Your task to perform on an android device: toggle wifi Image 0: 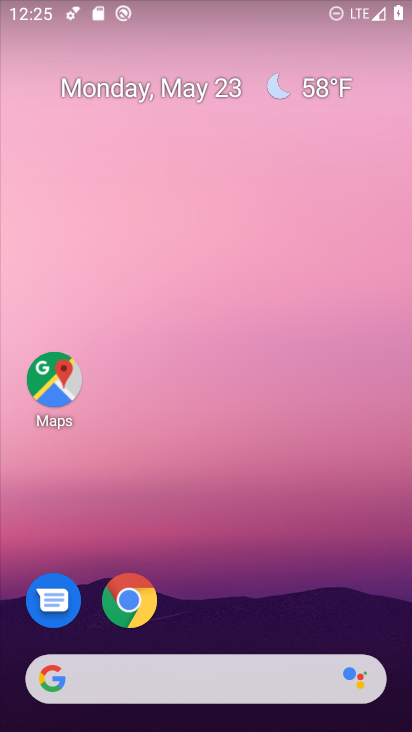
Step 0: drag from (276, 589) to (339, 162)
Your task to perform on an android device: toggle wifi Image 1: 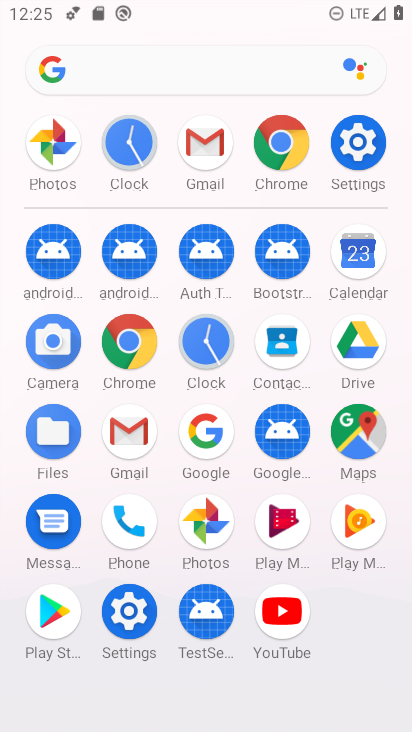
Step 1: click (353, 151)
Your task to perform on an android device: toggle wifi Image 2: 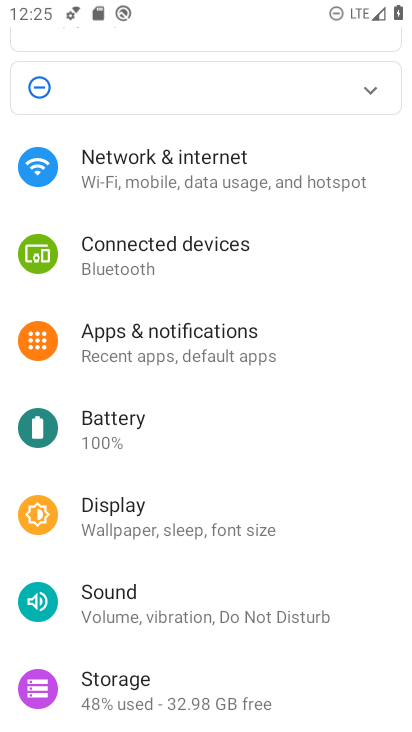
Step 2: drag from (133, 350) to (158, 576)
Your task to perform on an android device: toggle wifi Image 3: 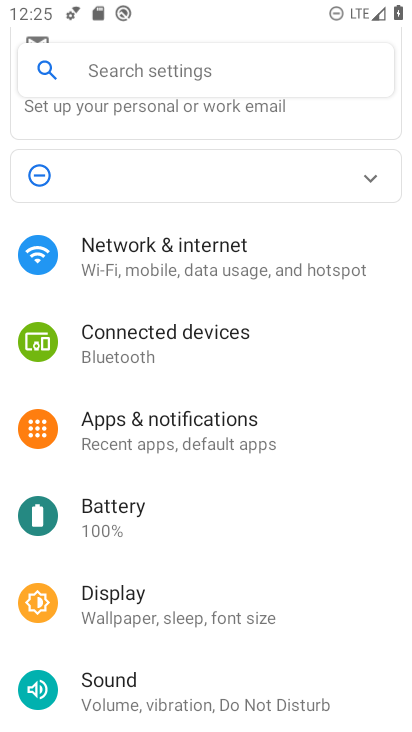
Step 3: click (167, 267)
Your task to perform on an android device: toggle wifi Image 4: 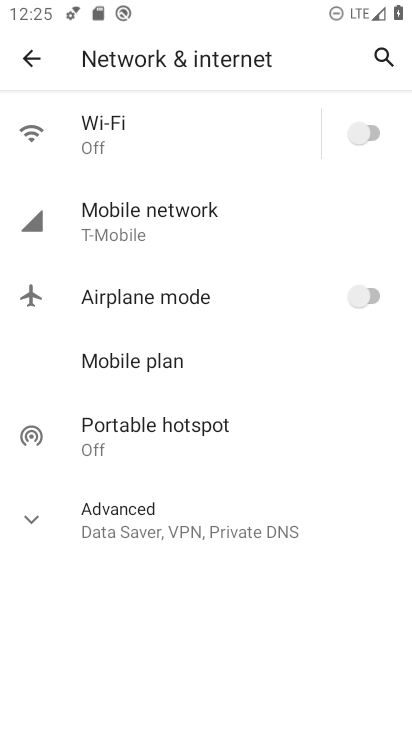
Step 4: click (368, 136)
Your task to perform on an android device: toggle wifi Image 5: 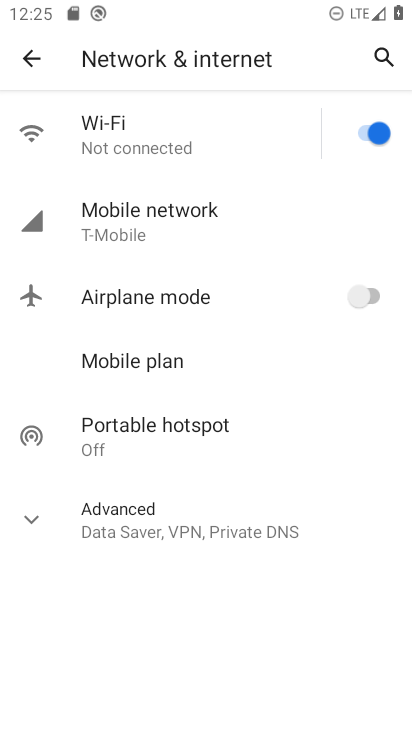
Step 5: task complete